Your task to perform on an android device: Show me popular games on the Play Store Image 0: 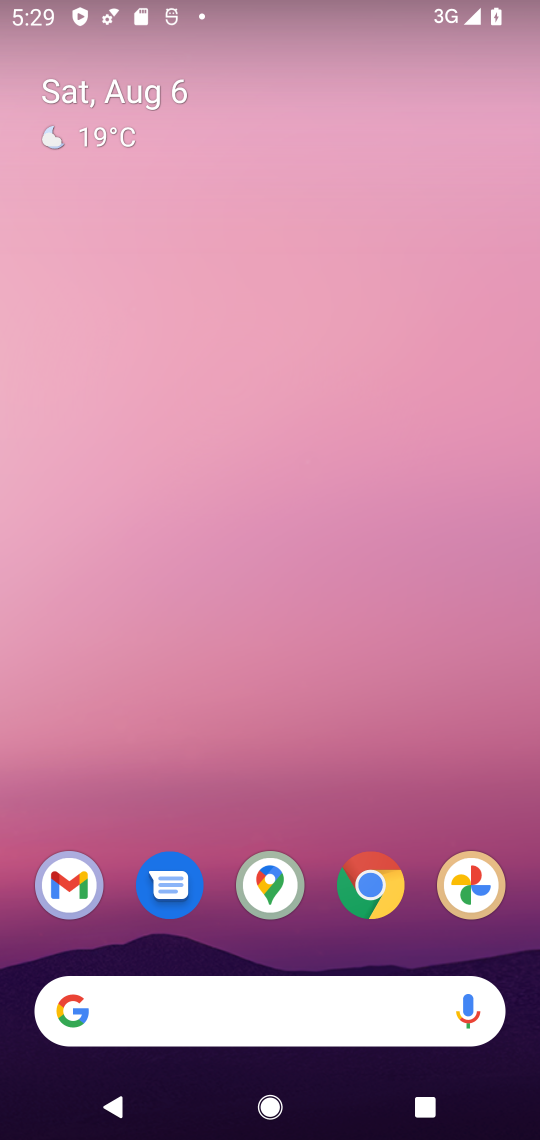
Step 0: drag from (436, 936) to (284, 81)
Your task to perform on an android device: Show me popular games on the Play Store Image 1: 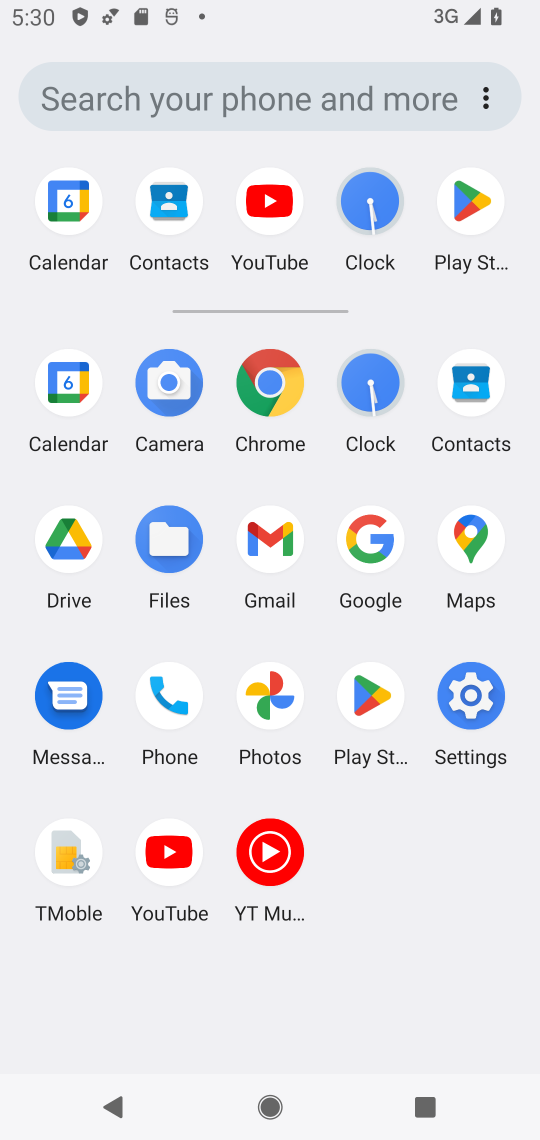
Step 1: click (332, 689)
Your task to perform on an android device: Show me popular games on the Play Store Image 2: 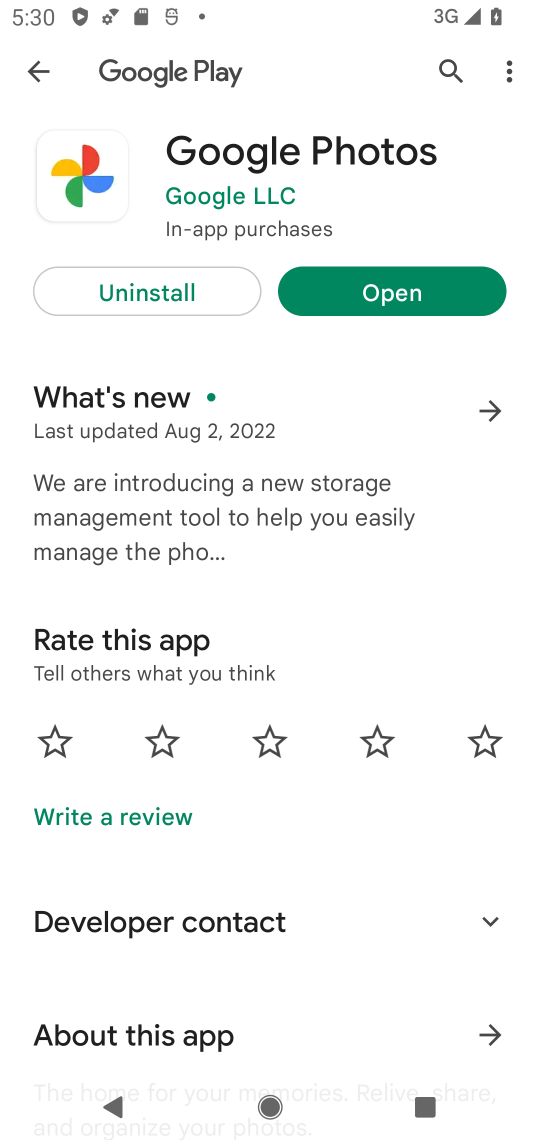
Step 2: task complete